Your task to perform on an android device: turn off location history Image 0: 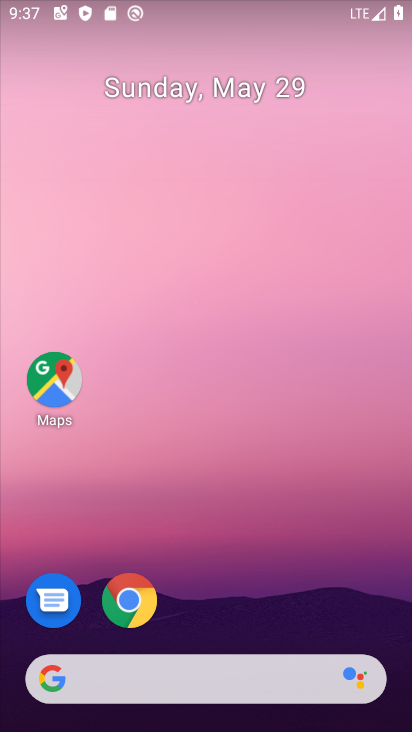
Step 0: drag from (286, 617) to (303, 111)
Your task to perform on an android device: turn off location history Image 1: 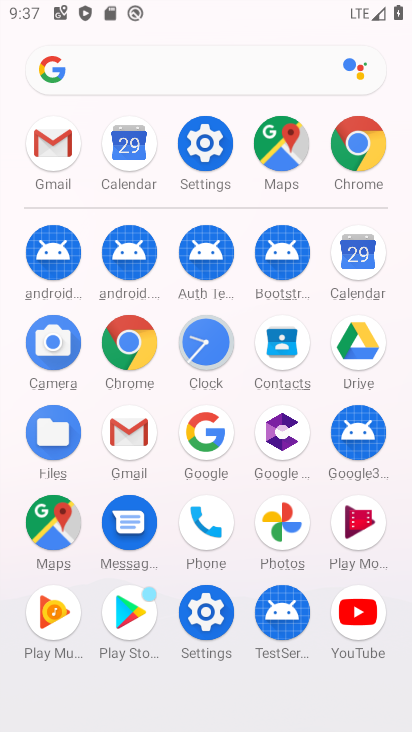
Step 1: click (41, 523)
Your task to perform on an android device: turn off location history Image 2: 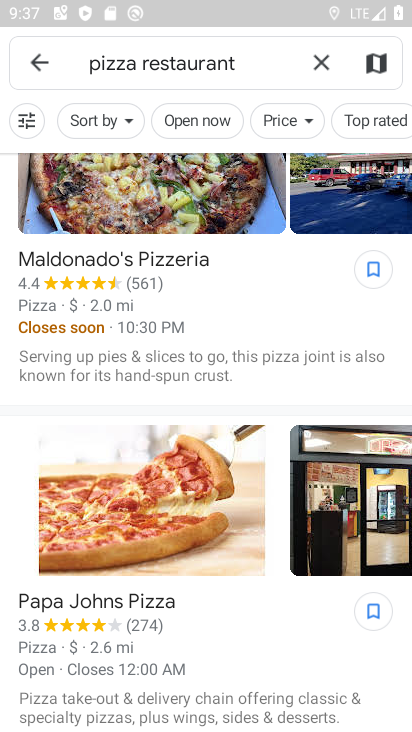
Step 2: click (37, 70)
Your task to perform on an android device: turn off location history Image 3: 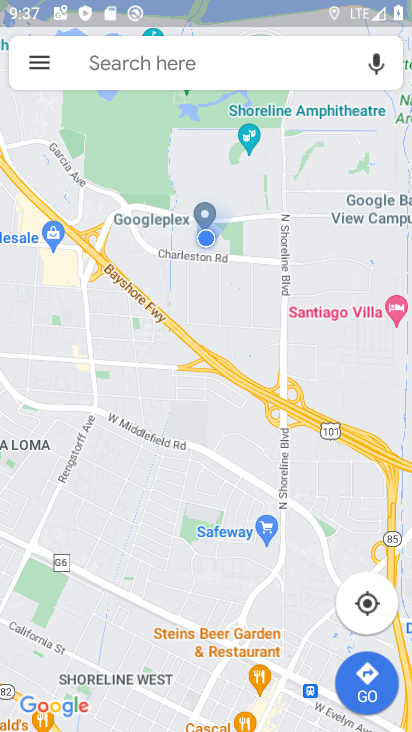
Step 3: click (45, 63)
Your task to perform on an android device: turn off location history Image 4: 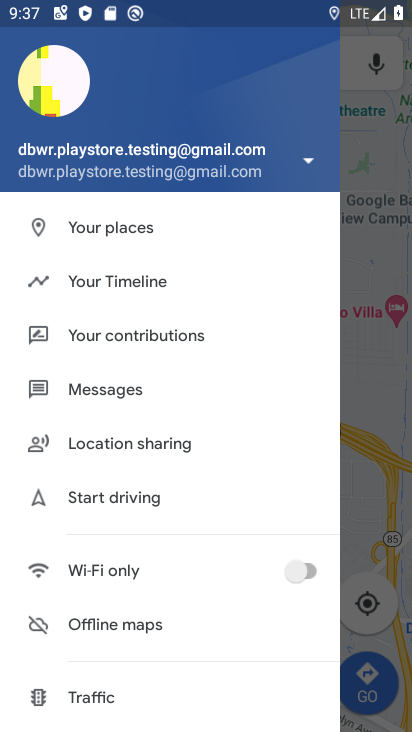
Step 4: click (144, 280)
Your task to perform on an android device: turn off location history Image 5: 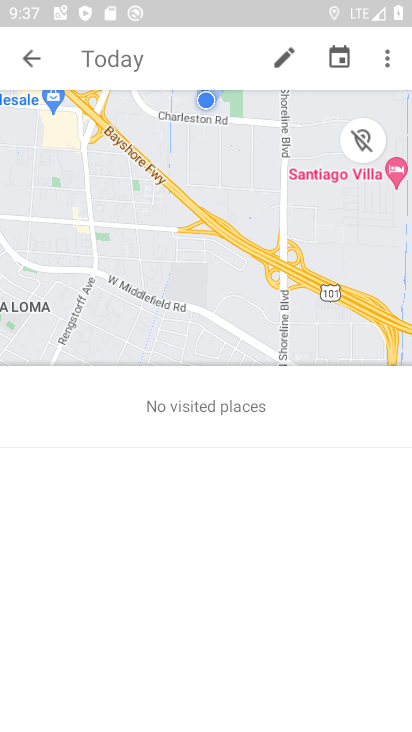
Step 5: click (388, 65)
Your task to perform on an android device: turn off location history Image 6: 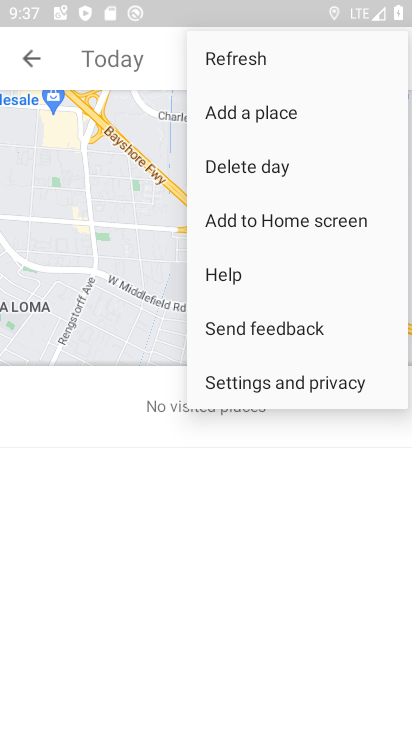
Step 6: click (314, 380)
Your task to perform on an android device: turn off location history Image 7: 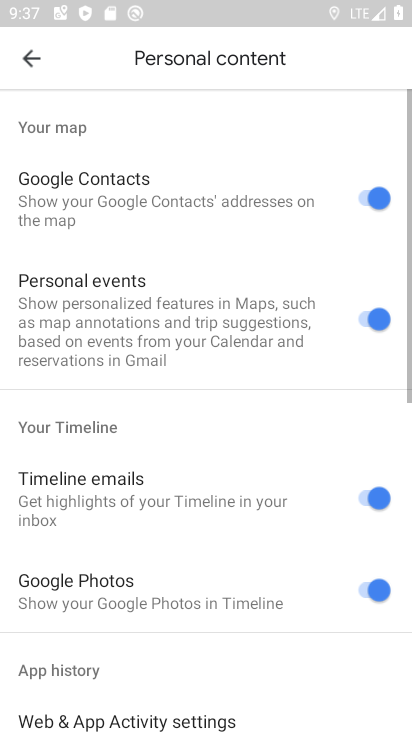
Step 7: drag from (190, 635) to (280, 202)
Your task to perform on an android device: turn off location history Image 8: 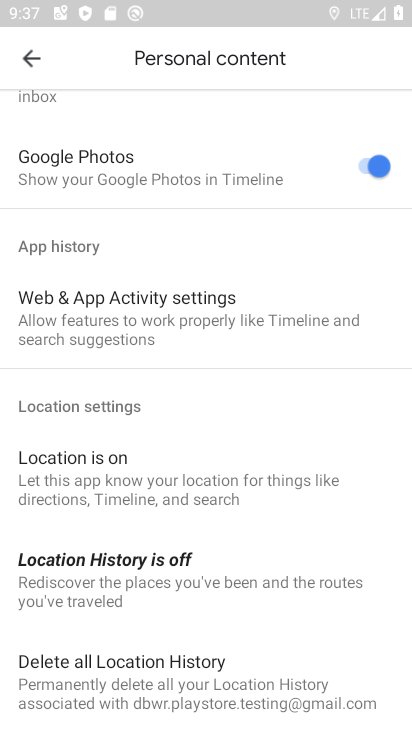
Step 8: click (67, 556)
Your task to perform on an android device: turn off location history Image 9: 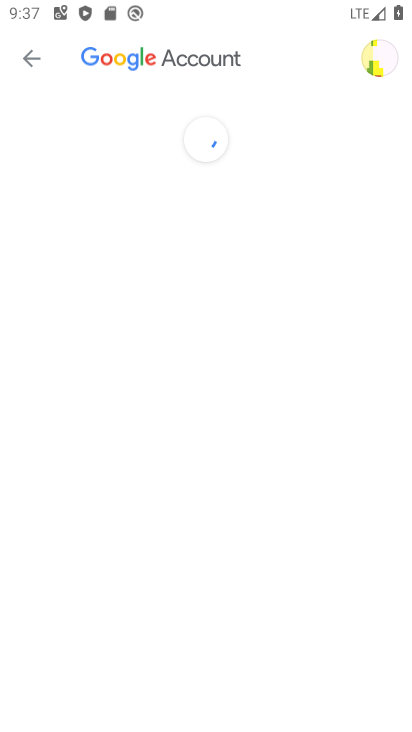
Step 9: drag from (260, 627) to (294, 213)
Your task to perform on an android device: turn off location history Image 10: 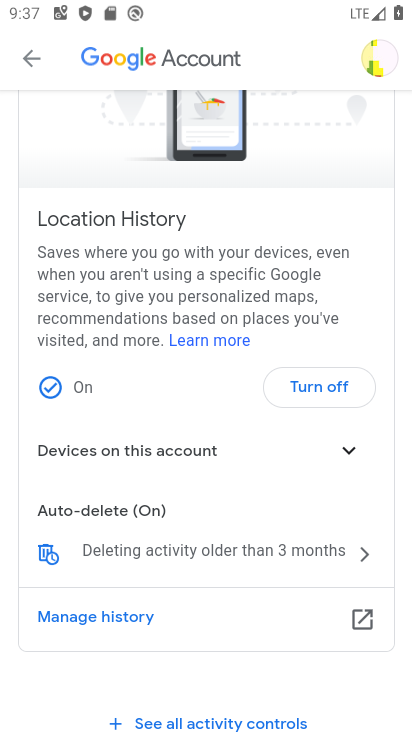
Step 10: click (327, 387)
Your task to perform on an android device: turn off location history Image 11: 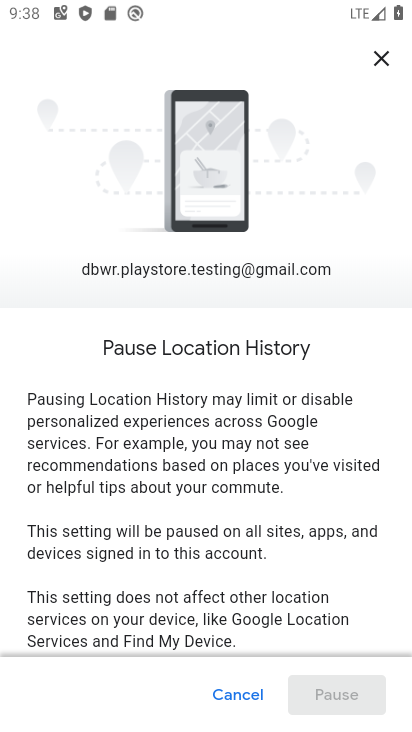
Step 11: drag from (296, 593) to (306, 146)
Your task to perform on an android device: turn off location history Image 12: 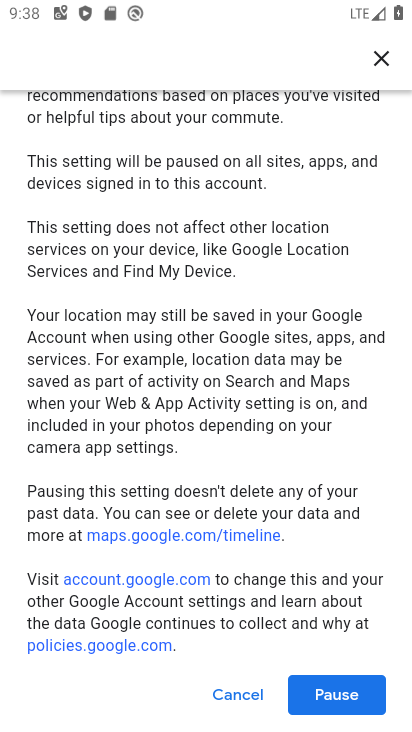
Step 12: drag from (206, 560) to (271, 240)
Your task to perform on an android device: turn off location history Image 13: 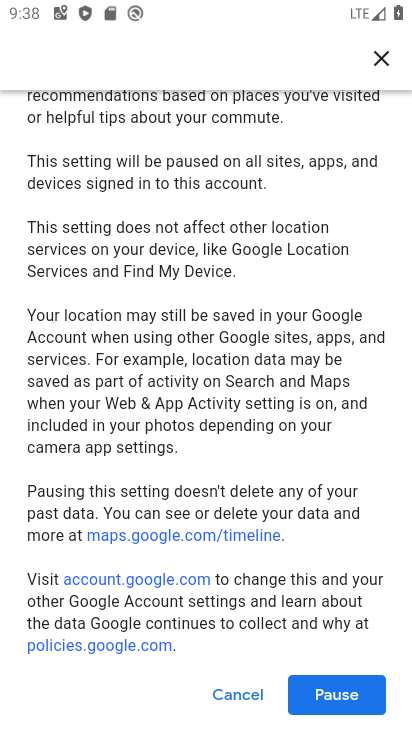
Step 13: click (332, 687)
Your task to perform on an android device: turn off location history Image 14: 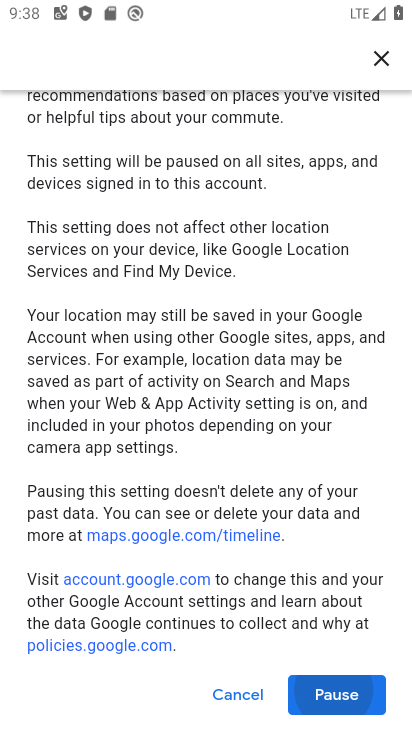
Step 14: click (332, 687)
Your task to perform on an android device: turn off location history Image 15: 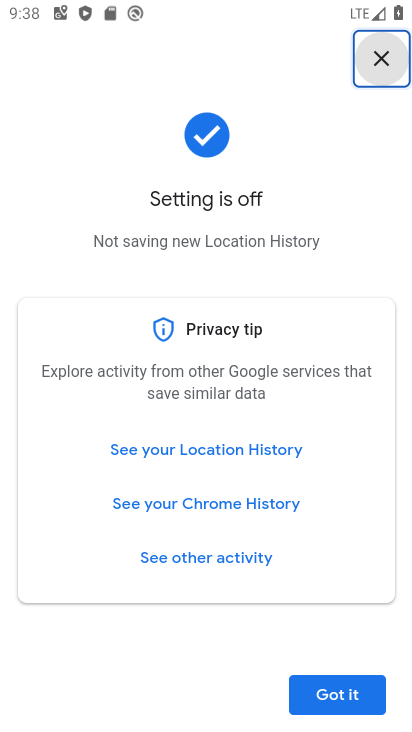
Step 15: click (335, 687)
Your task to perform on an android device: turn off location history Image 16: 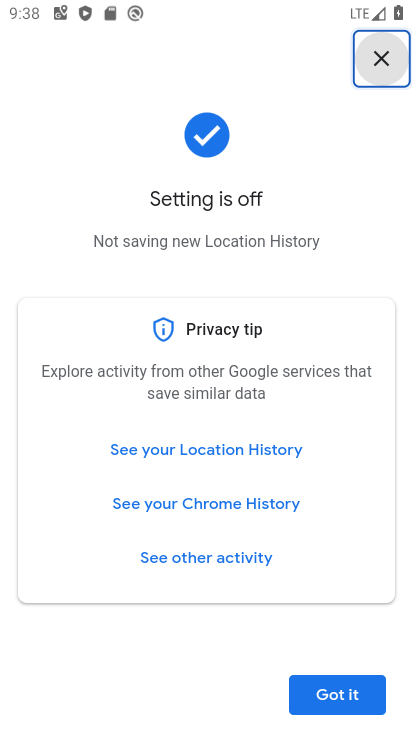
Step 16: click (335, 687)
Your task to perform on an android device: turn off location history Image 17: 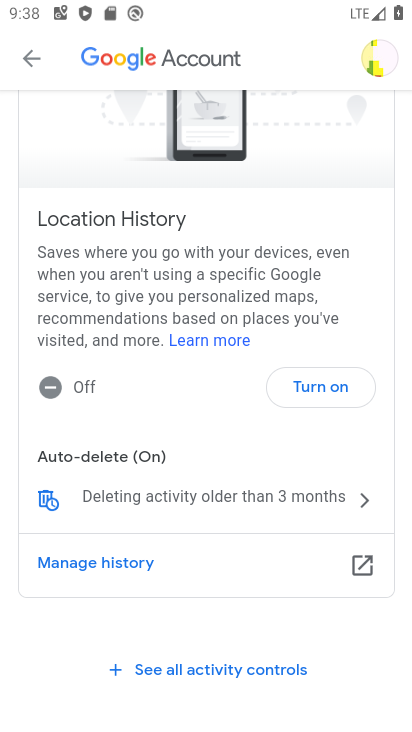
Step 17: task complete